Your task to perform on an android device: toggle show notifications on the lock screen Image 0: 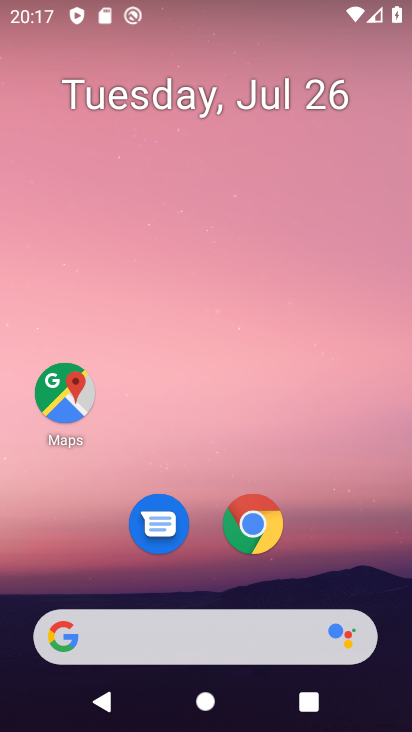
Step 0: drag from (235, 587) to (333, 264)
Your task to perform on an android device: toggle show notifications on the lock screen Image 1: 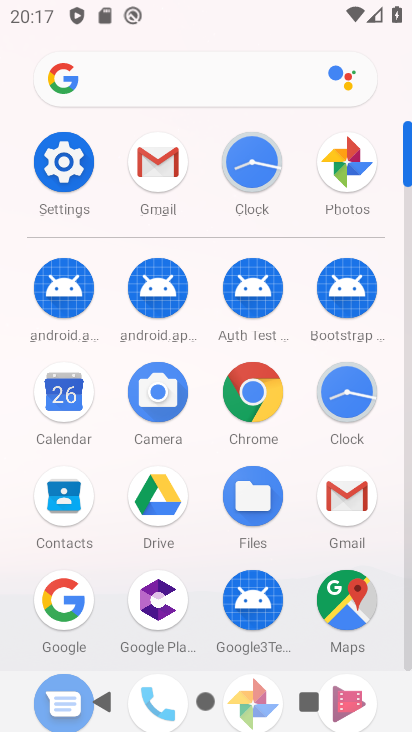
Step 1: click (58, 167)
Your task to perform on an android device: toggle show notifications on the lock screen Image 2: 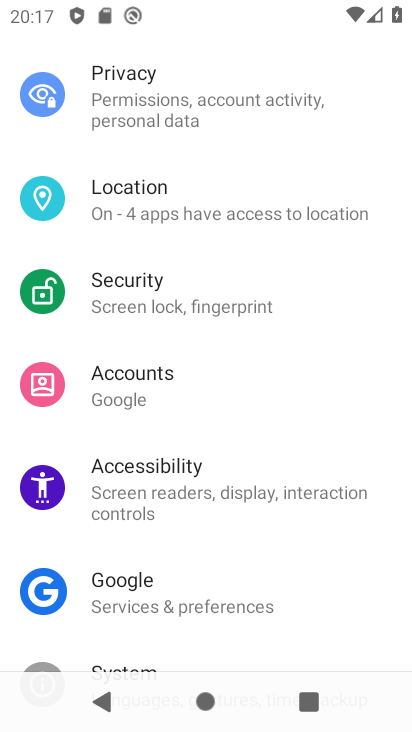
Step 2: drag from (282, 147) to (248, 612)
Your task to perform on an android device: toggle show notifications on the lock screen Image 3: 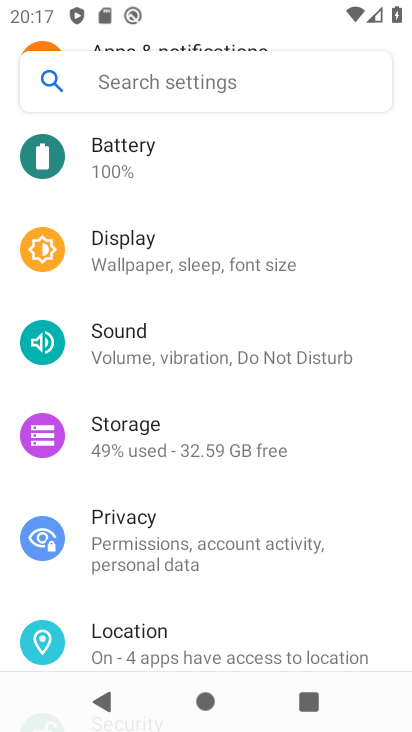
Step 3: drag from (216, 182) to (199, 610)
Your task to perform on an android device: toggle show notifications on the lock screen Image 4: 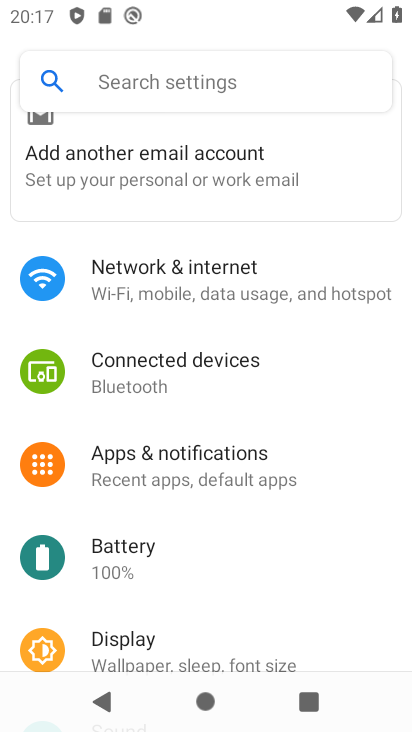
Step 4: click (186, 453)
Your task to perform on an android device: toggle show notifications on the lock screen Image 5: 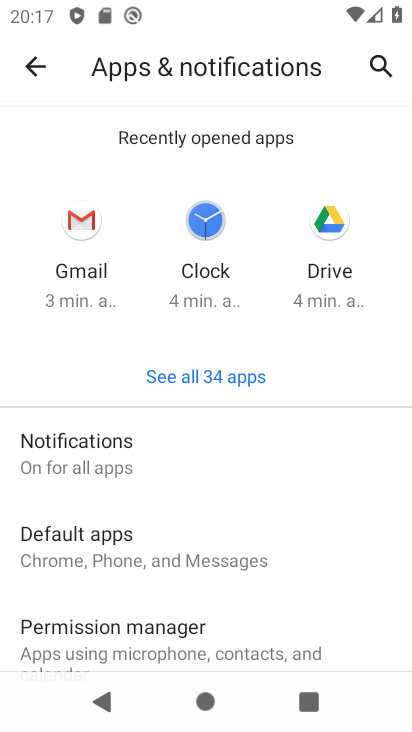
Step 5: click (98, 451)
Your task to perform on an android device: toggle show notifications on the lock screen Image 6: 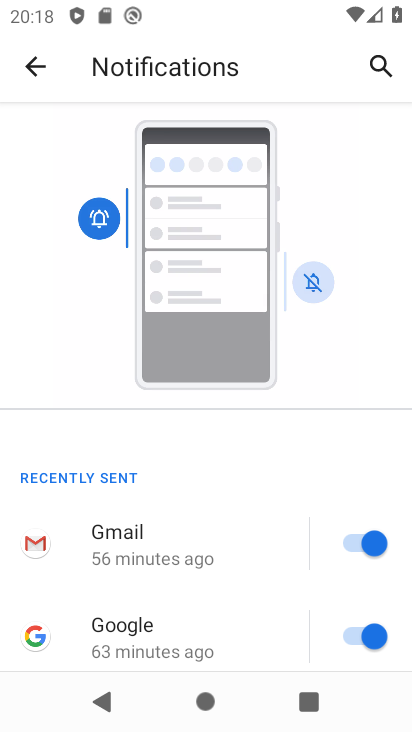
Step 6: drag from (249, 626) to (338, 64)
Your task to perform on an android device: toggle show notifications on the lock screen Image 7: 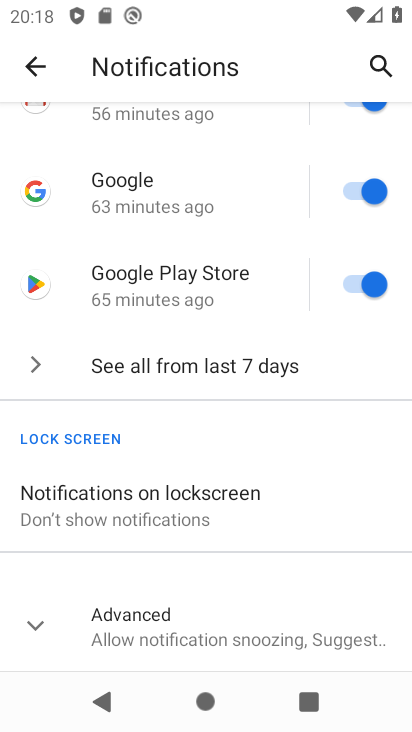
Step 7: click (190, 490)
Your task to perform on an android device: toggle show notifications on the lock screen Image 8: 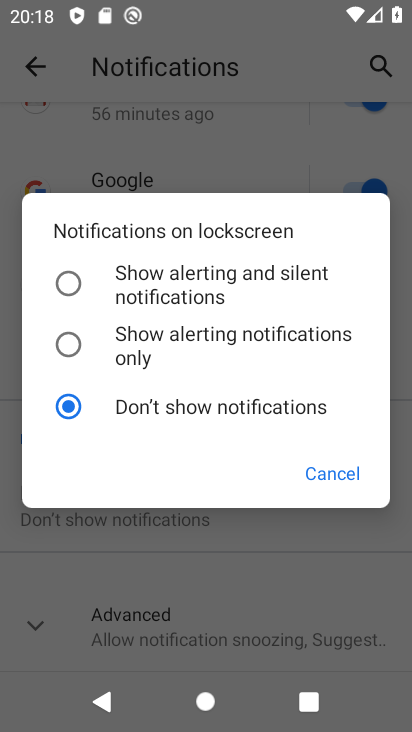
Step 8: click (69, 272)
Your task to perform on an android device: toggle show notifications on the lock screen Image 9: 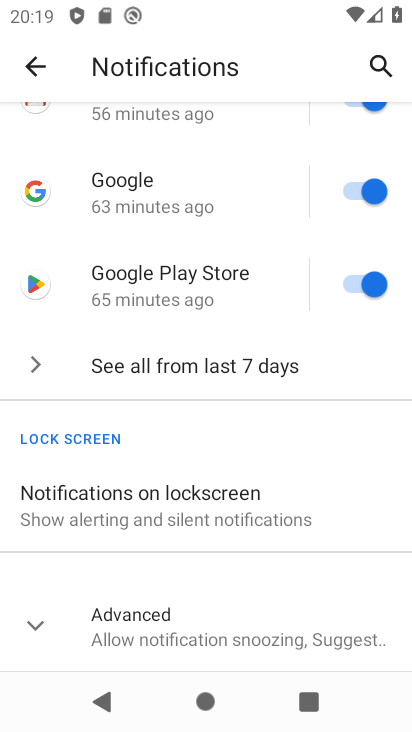
Step 9: task complete